Your task to perform on an android device: star an email in the gmail app Image 0: 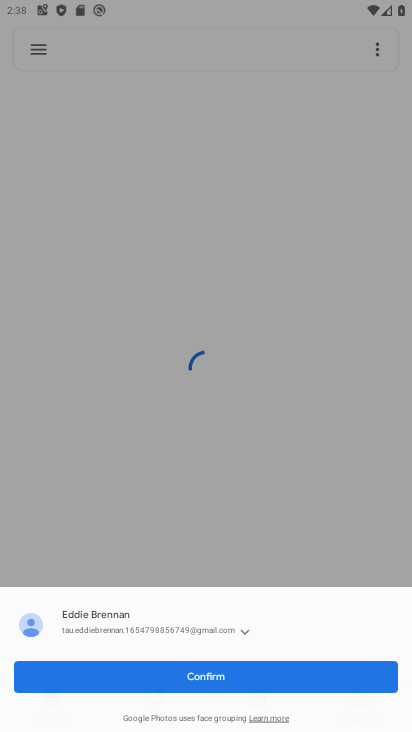
Step 0: press home button
Your task to perform on an android device: star an email in the gmail app Image 1: 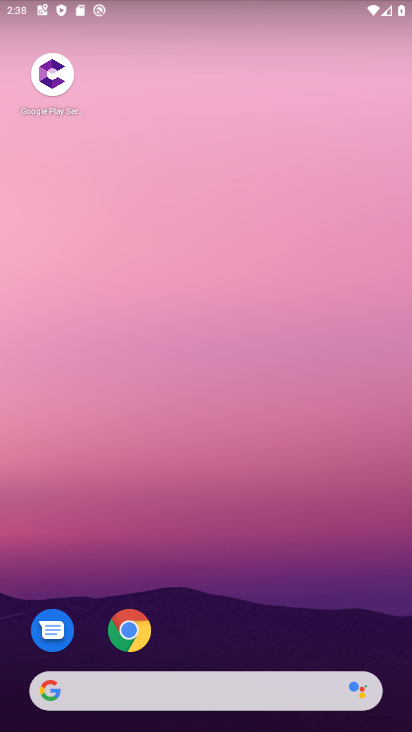
Step 1: drag from (308, 636) to (332, 190)
Your task to perform on an android device: star an email in the gmail app Image 2: 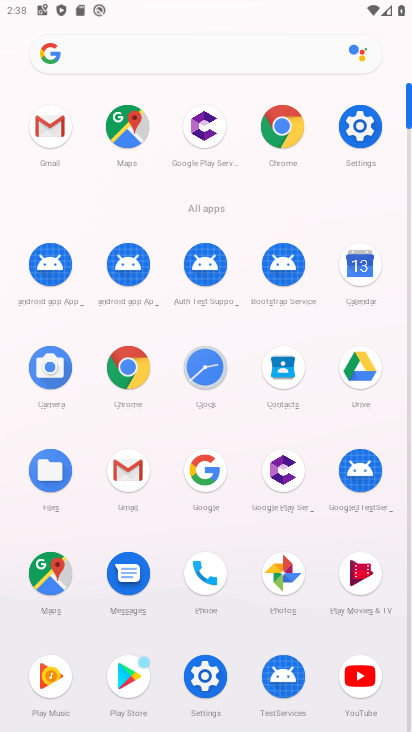
Step 2: click (131, 476)
Your task to perform on an android device: star an email in the gmail app Image 3: 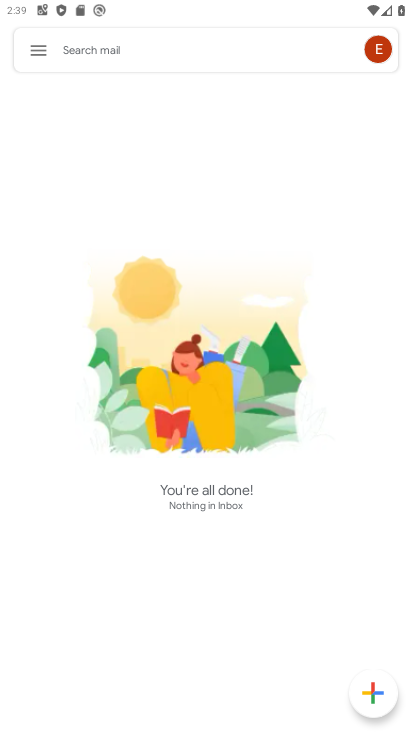
Step 3: task complete